Your task to perform on an android device: Open Chrome and go to settings Image 0: 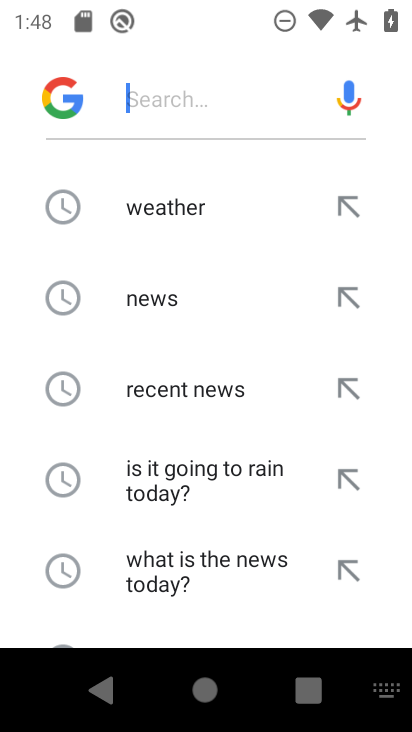
Step 0: press back button
Your task to perform on an android device: Open Chrome and go to settings Image 1: 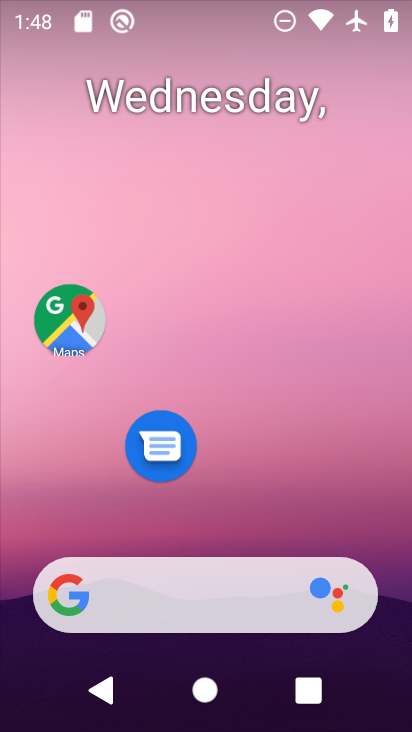
Step 1: press home button
Your task to perform on an android device: Open Chrome and go to settings Image 2: 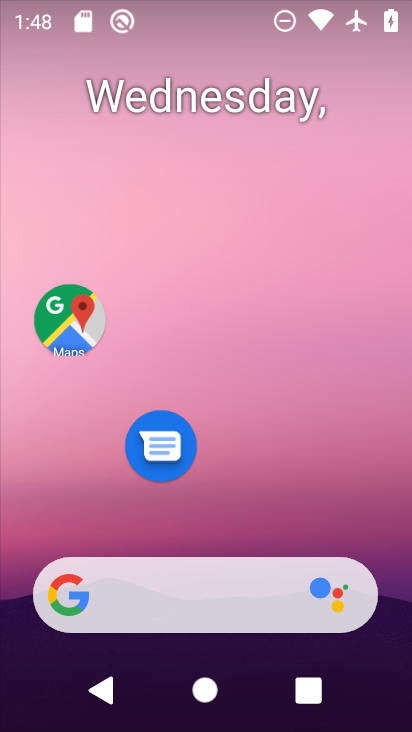
Step 2: drag from (259, 537) to (260, 200)
Your task to perform on an android device: Open Chrome and go to settings Image 3: 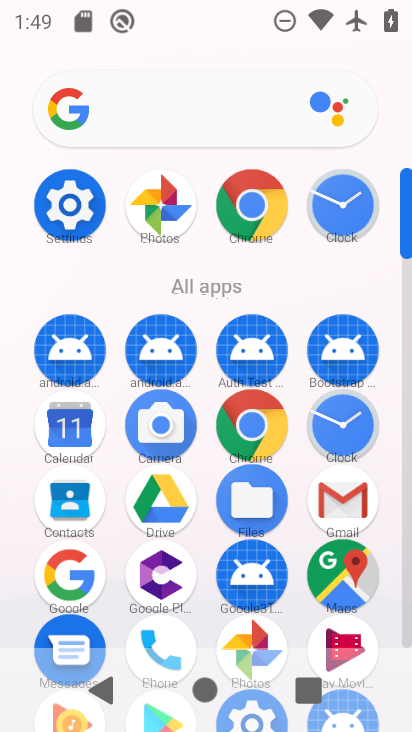
Step 3: click (238, 207)
Your task to perform on an android device: Open Chrome and go to settings Image 4: 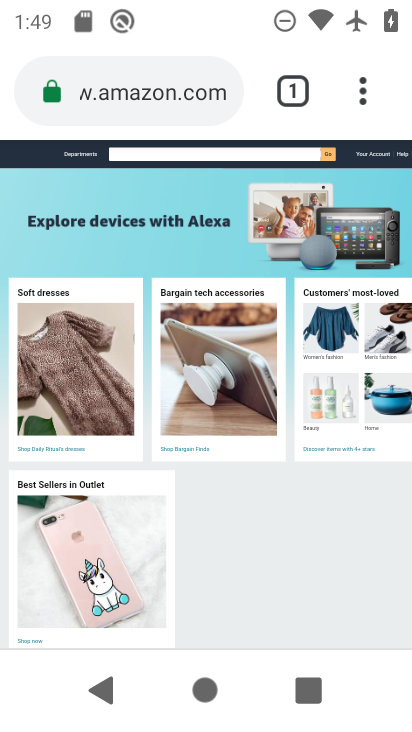
Step 4: click (377, 111)
Your task to perform on an android device: Open Chrome and go to settings Image 5: 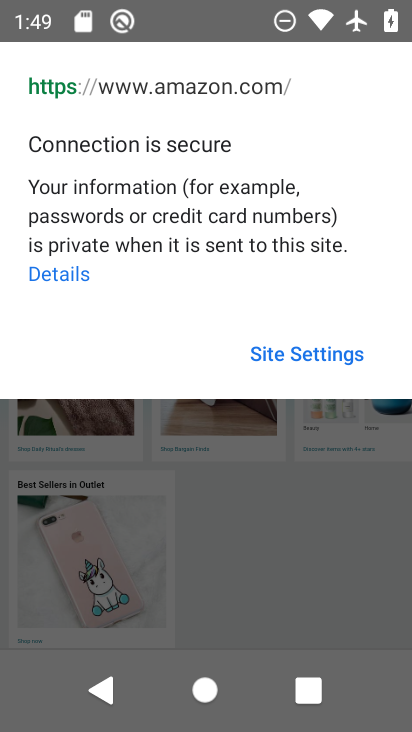
Step 5: click (165, 492)
Your task to perform on an android device: Open Chrome and go to settings Image 6: 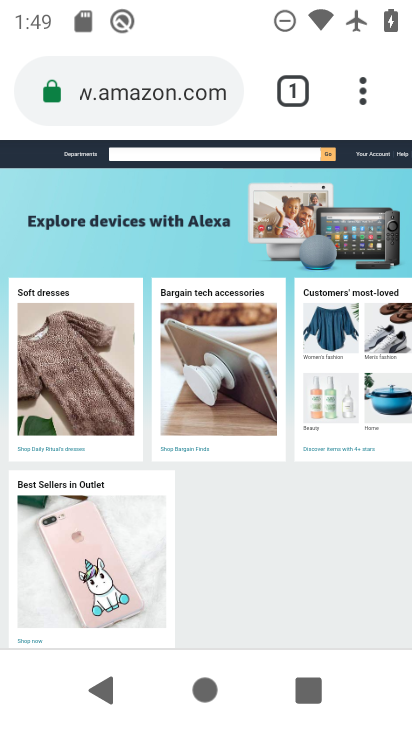
Step 6: click (366, 96)
Your task to perform on an android device: Open Chrome and go to settings Image 7: 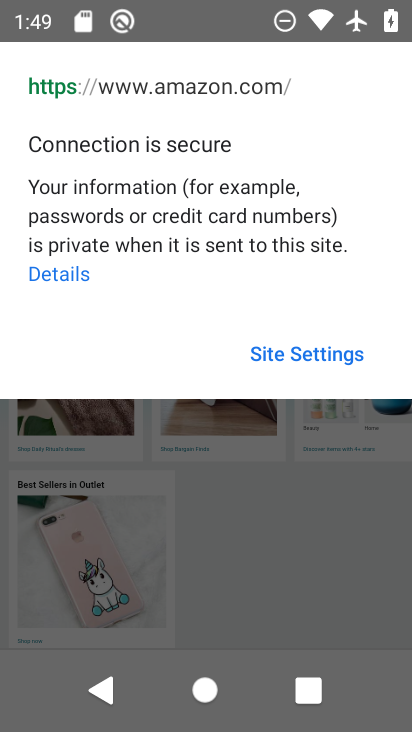
Step 7: click (289, 457)
Your task to perform on an android device: Open Chrome and go to settings Image 8: 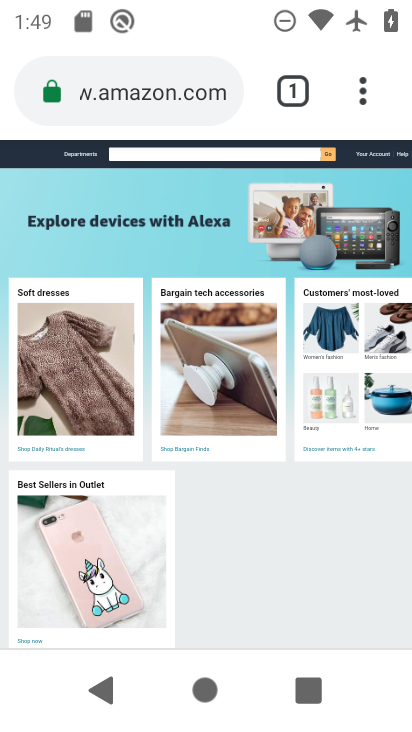
Step 8: click (372, 83)
Your task to perform on an android device: Open Chrome and go to settings Image 9: 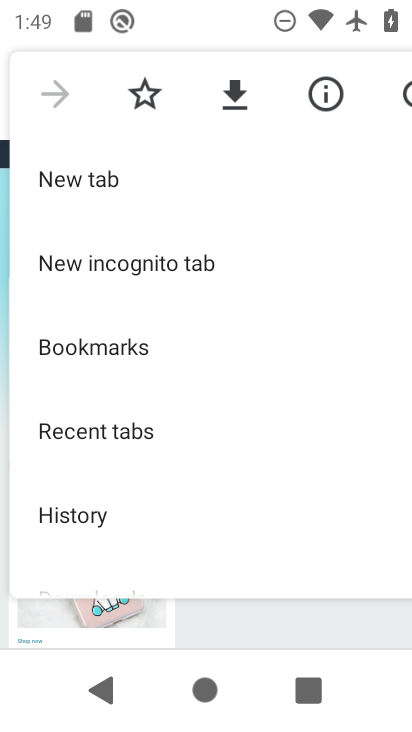
Step 9: drag from (211, 515) to (211, 388)
Your task to perform on an android device: Open Chrome and go to settings Image 10: 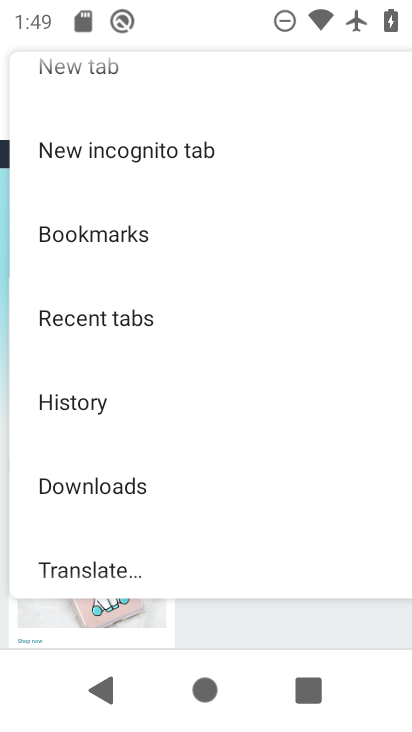
Step 10: drag from (165, 496) to (178, 177)
Your task to perform on an android device: Open Chrome and go to settings Image 11: 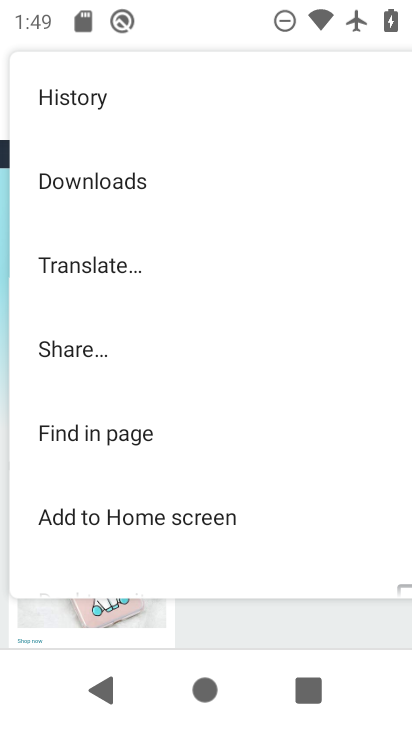
Step 11: drag from (157, 521) to (151, 358)
Your task to perform on an android device: Open Chrome and go to settings Image 12: 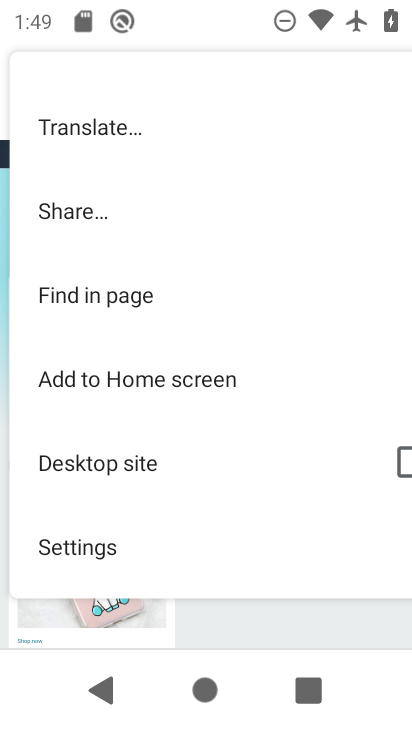
Step 12: click (151, 358)
Your task to perform on an android device: Open Chrome and go to settings Image 13: 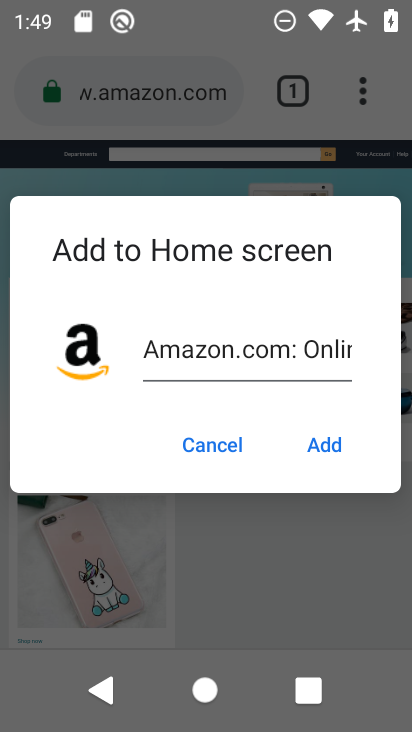
Step 13: click (221, 447)
Your task to perform on an android device: Open Chrome and go to settings Image 14: 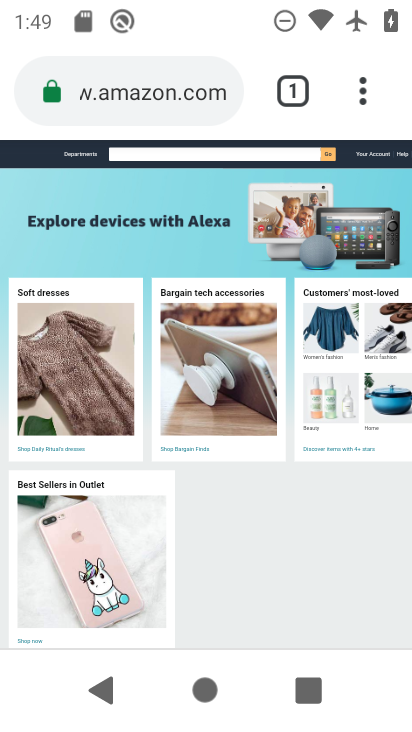
Step 14: click (365, 118)
Your task to perform on an android device: Open Chrome and go to settings Image 15: 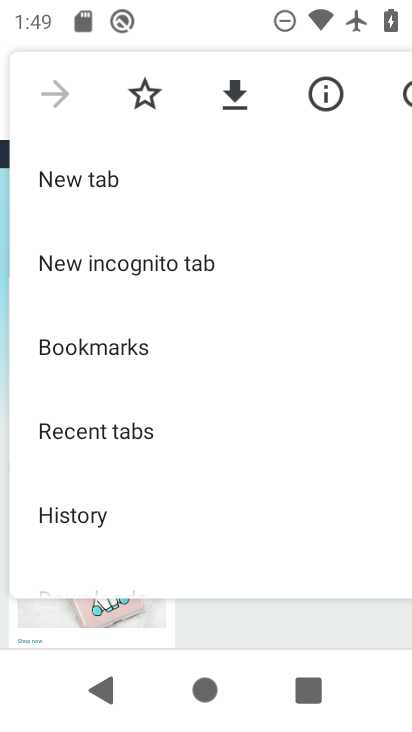
Step 15: drag from (227, 360) to (224, 214)
Your task to perform on an android device: Open Chrome and go to settings Image 16: 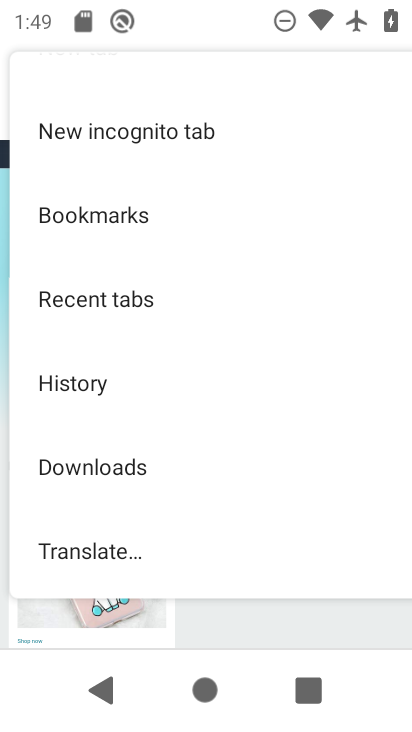
Step 16: drag from (212, 411) to (199, 200)
Your task to perform on an android device: Open Chrome and go to settings Image 17: 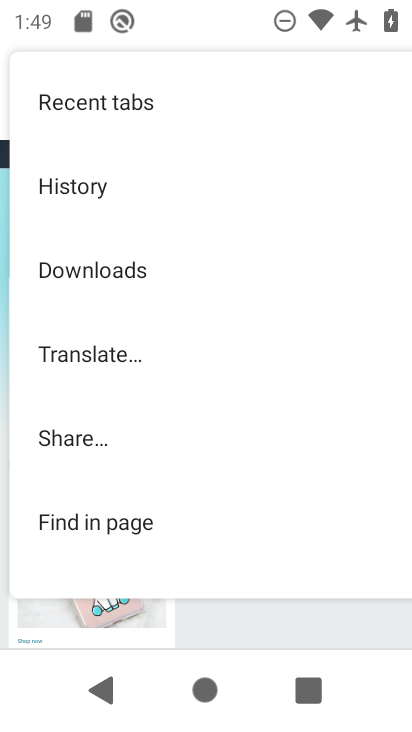
Step 17: drag from (207, 526) to (204, 242)
Your task to perform on an android device: Open Chrome and go to settings Image 18: 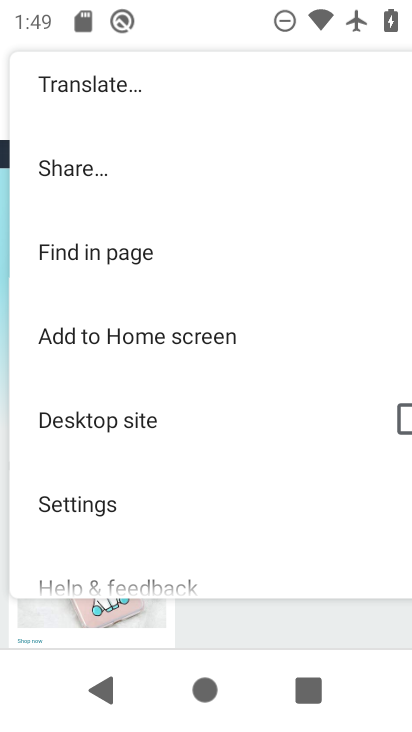
Step 18: click (128, 493)
Your task to perform on an android device: Open Chrome and go to settings Image 19: 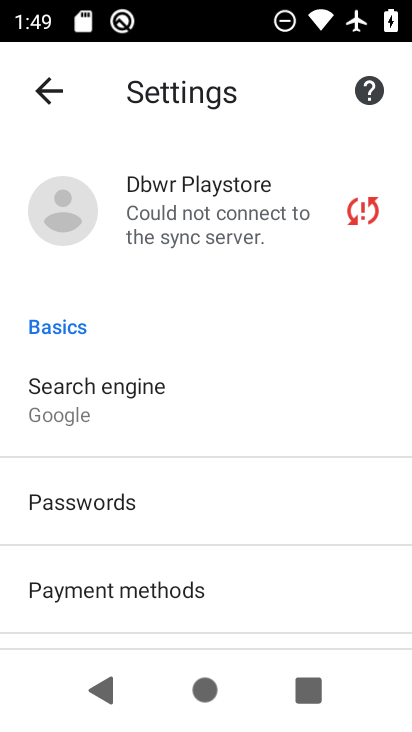
Step 19: task complete